Your task to perform on an android device: Look up the top rated 18v miter saw on Home Depot. Image 0: 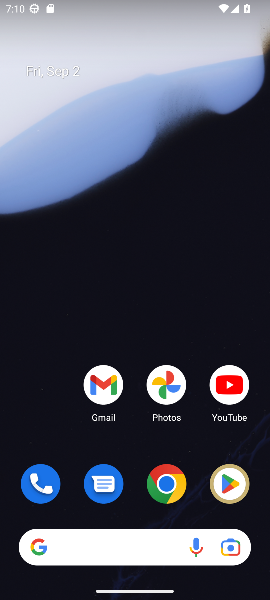
Step 0: click (161, 480)
Your task to perform on an android device: Look up the top rated 18v miter saw on Home Depot. Image 1: 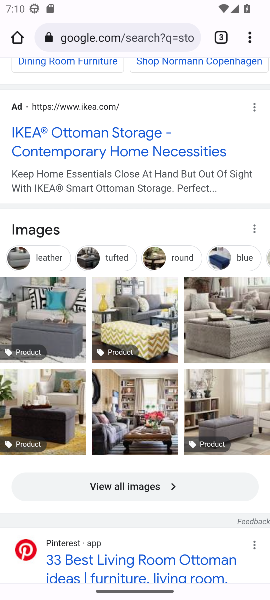
Step 1: click (146, 36)
Your task to perform on an android device: Look up the top rated 18v miter saw on Home Depot. Image 2: 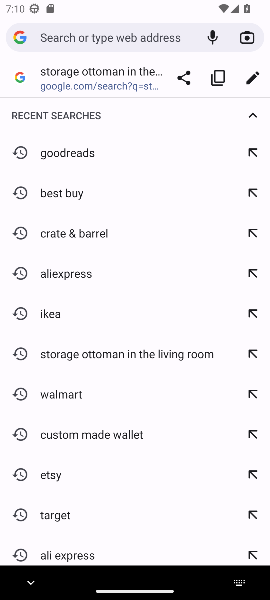
Step 2: type "Home Depot"
Your task to perform on an android device: Look up the top rated 18v miter saw on Home Depot. Image 3: 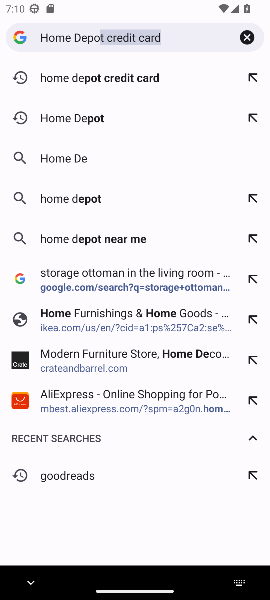
Step 3: press enter
Your task to perform on an android device: Look up the top rated 18v miter saw on Home Depot. Image 4: 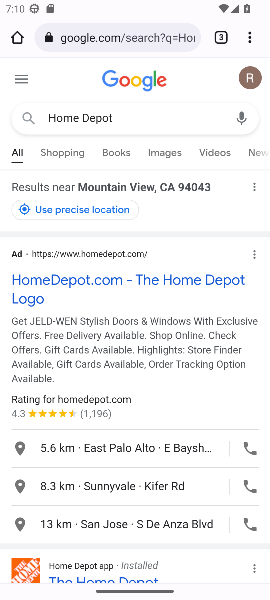
Step 4: click (161, 280)
Your task to perform on an android device: Look up the top rated 18v miter saw on Home Depot. Image 5: 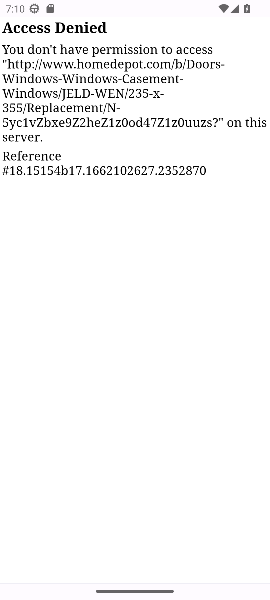
Step 5: task complete